Your task to perform on an android device: Turn off the flashlight Image 0: 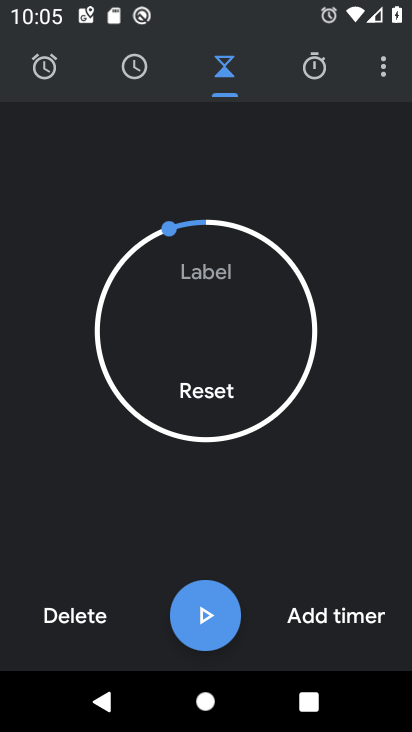
Step 0: press home button
Your task to perform on an android device: Turn off the flashlight Image 1: 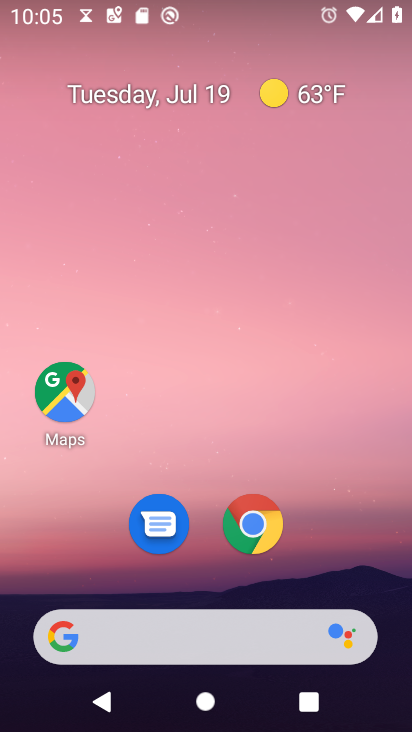
Step 1: task complete